Your task to perform on an android device: Go to internet settings Image 0: 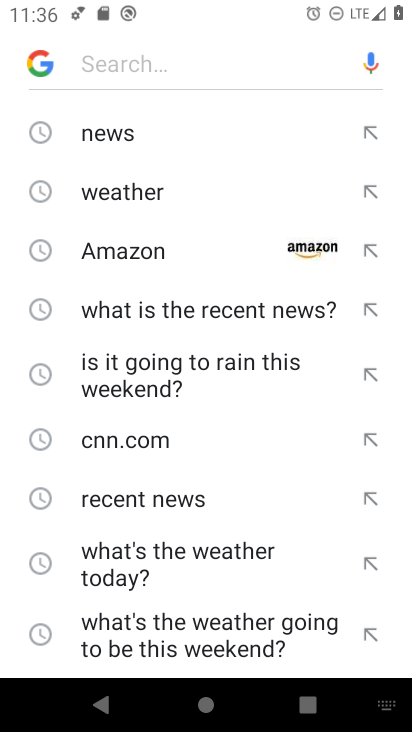
Step 0: press back button
Your task to perform on an android device: Go to internet settings Image 1: 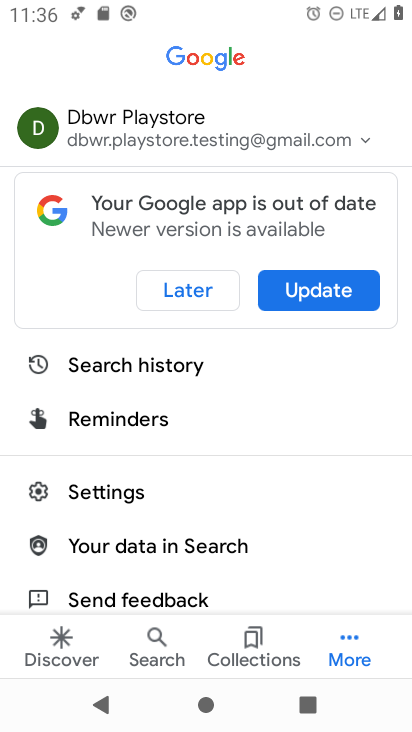
Step 1: press back button
Your task to perform on an android device: Go to internet settings Image 2: 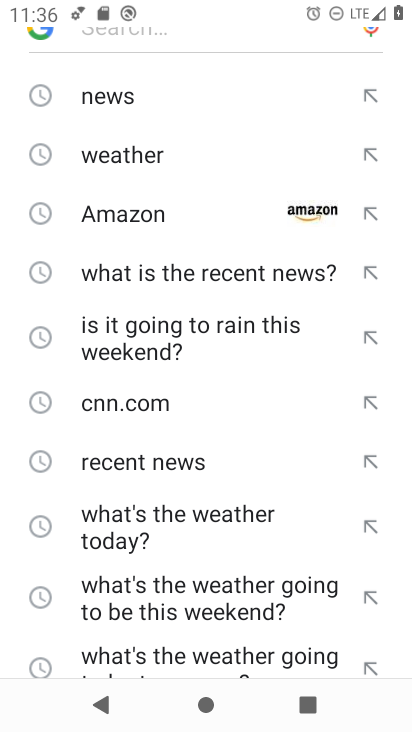
Step 2: press back button
Your task to perform on an android device: Go to internet settings Image 3: 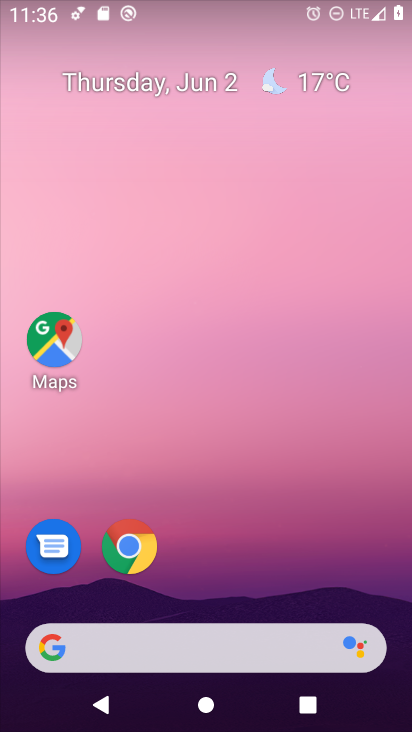
Step 3: drag from (263, 531) to (219, 27)
Your task to perform on an android device: Go to internet settings Image 4: 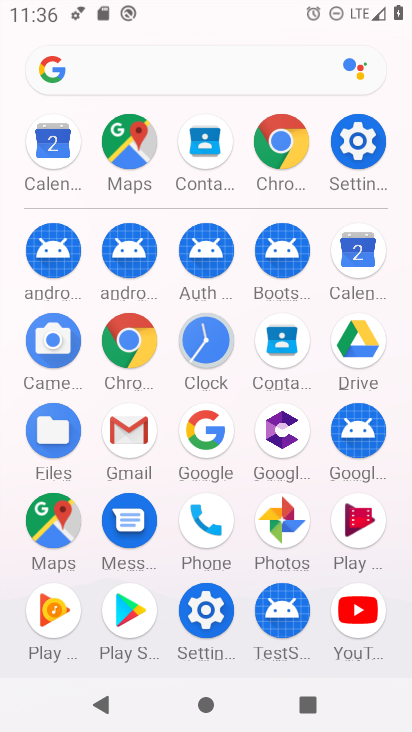
Step 4: click (205, 612)
Your task to perform on an android device: Go to internet settings Image 5: 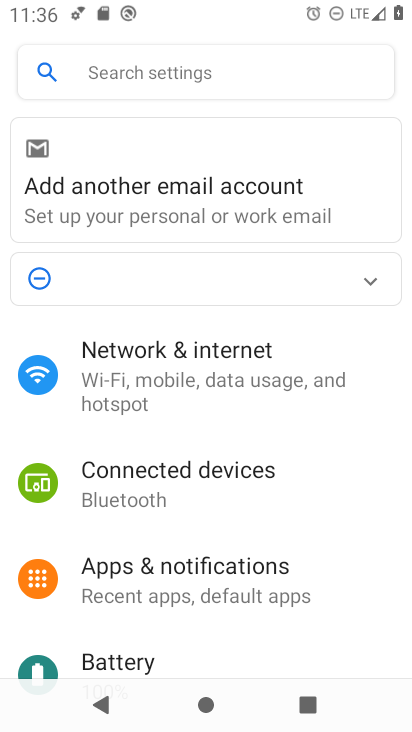
Step 5: drag from (263, 598) to (298, 171)
Your task to perform on an android device: Go to internet settings Image 6: 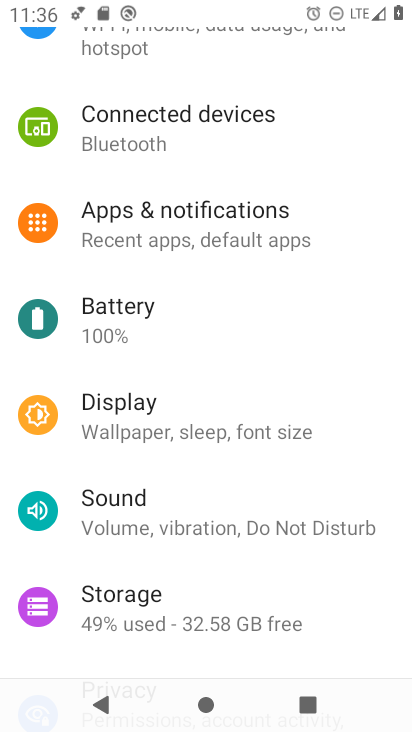
Step 6: drag from (259, 479) to (267, 128)
Your task to perform on an android device: Go to internet settings Image 7: 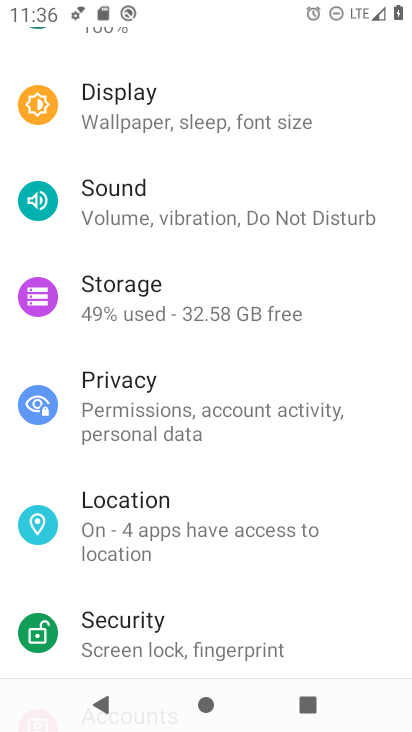
Step 7: drag from (252, 283) to (258, 114)
Your task to perform on an android device: Go to internet settings Image 8: 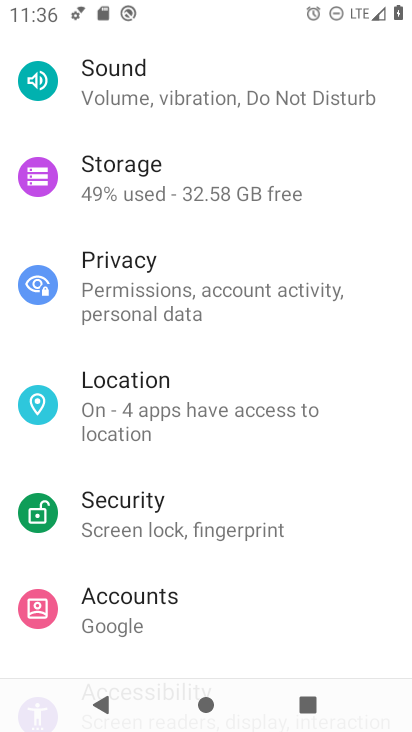
Step 8: drag from (247, 142) to (230, 566)
Your task to perform on an android device: Go to internet settings Image 9: 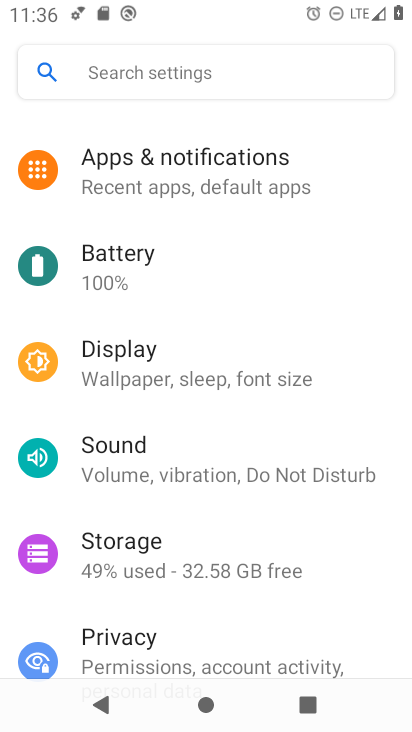
Step 9: drag from (233, 215) to (224, 595)
Your task to perform on an android device: Go to internet settings Image 10: 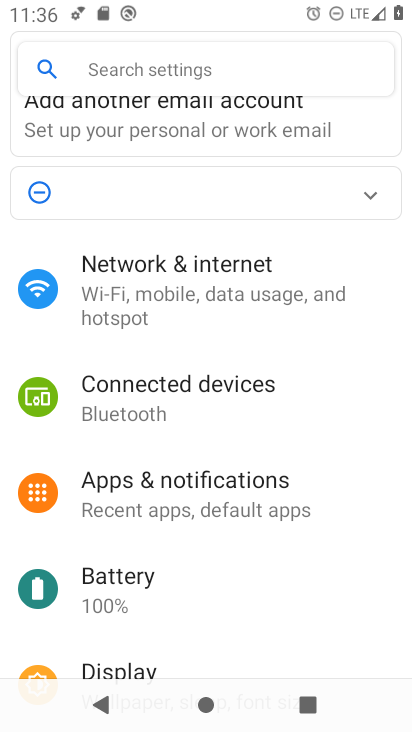
Step 10: click (224, 291)
Your task to perform on an android device: Go to internet settings Image 11: 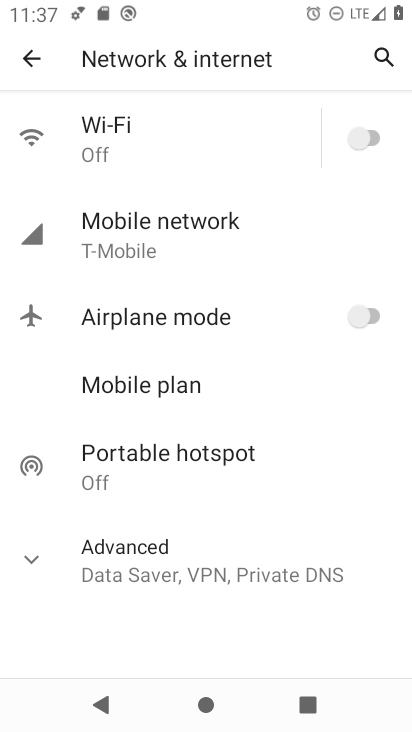
Step 11: click (132, 140)
Your task to perform on an android device: Go to internet settings Image 12: 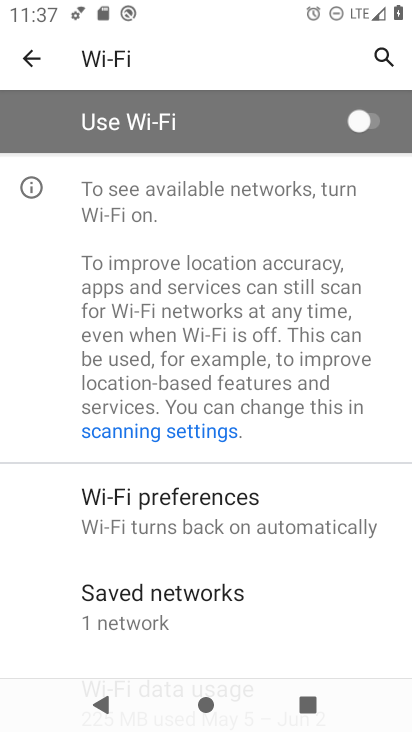
Step 12: click (42, 52)
Your task to perform on an android device: Go to internet settings Image 13: 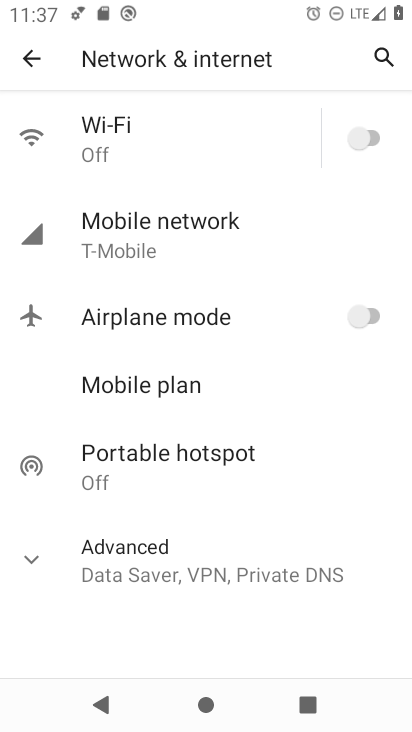
Step 13: click (28, 557)
Your task to perform on an android device: Go to internet settings Image 14: 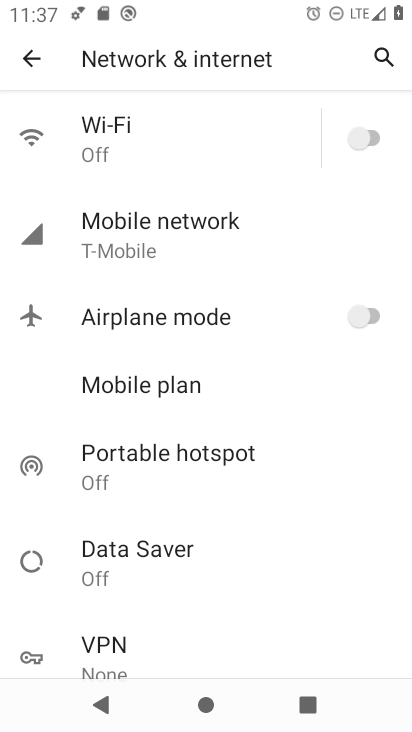
Step 14: task complete